Your task to perform on an android device: turn vacation reply on in the gmail app Image 0: 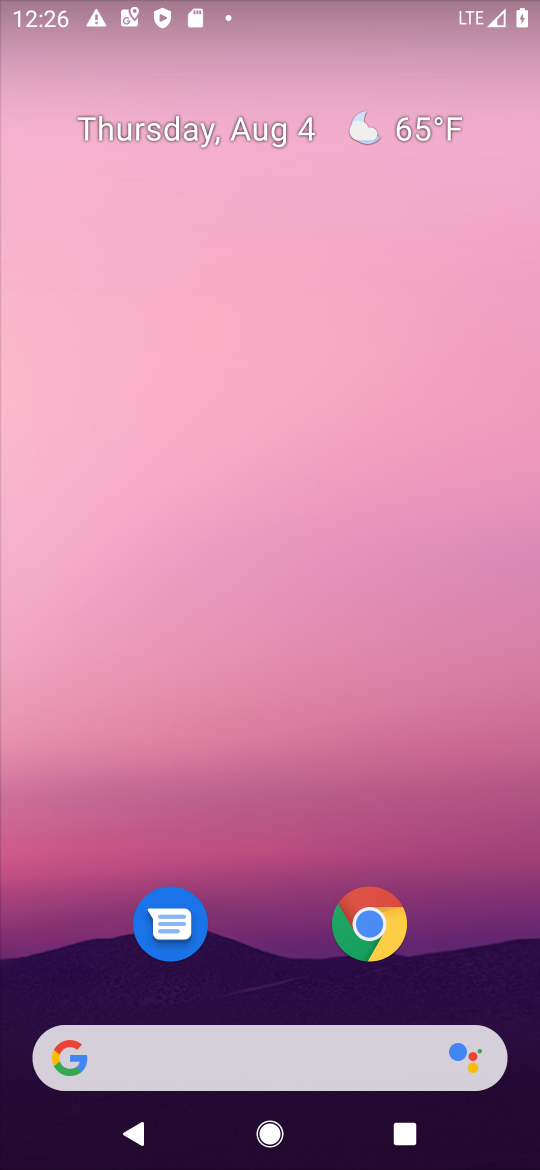
Step 0: drag from (166, 867) to (322, 29)
Your task to perform on an android device: turn vacation reply on in the gmail app Image 1: 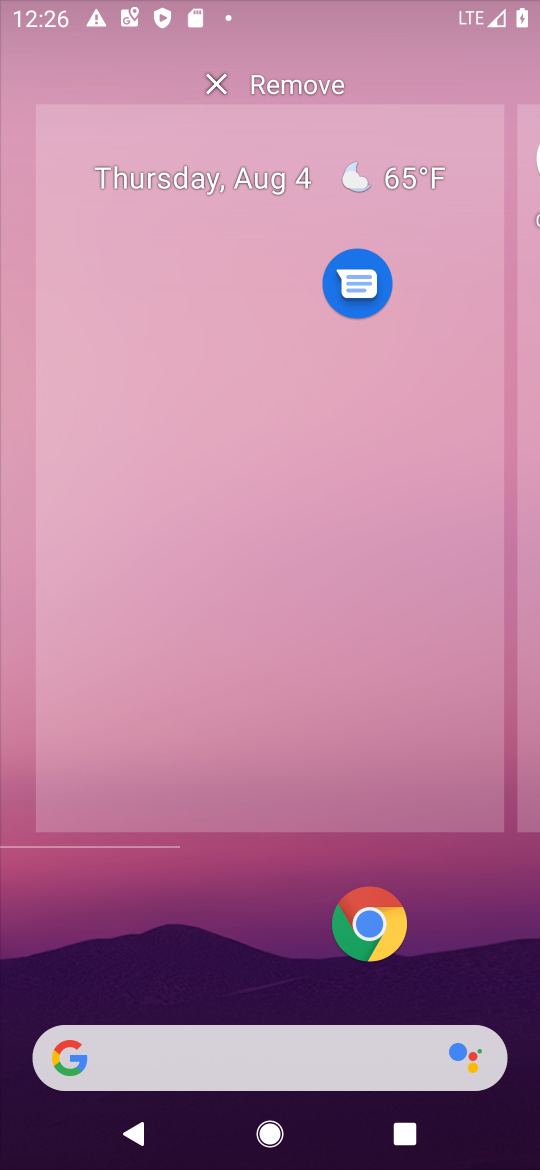
Step 1: drag from (36, 1141) to (189, 378)
Your task to perform on an android device: turn vacation reply on in the gmail app Image 2: 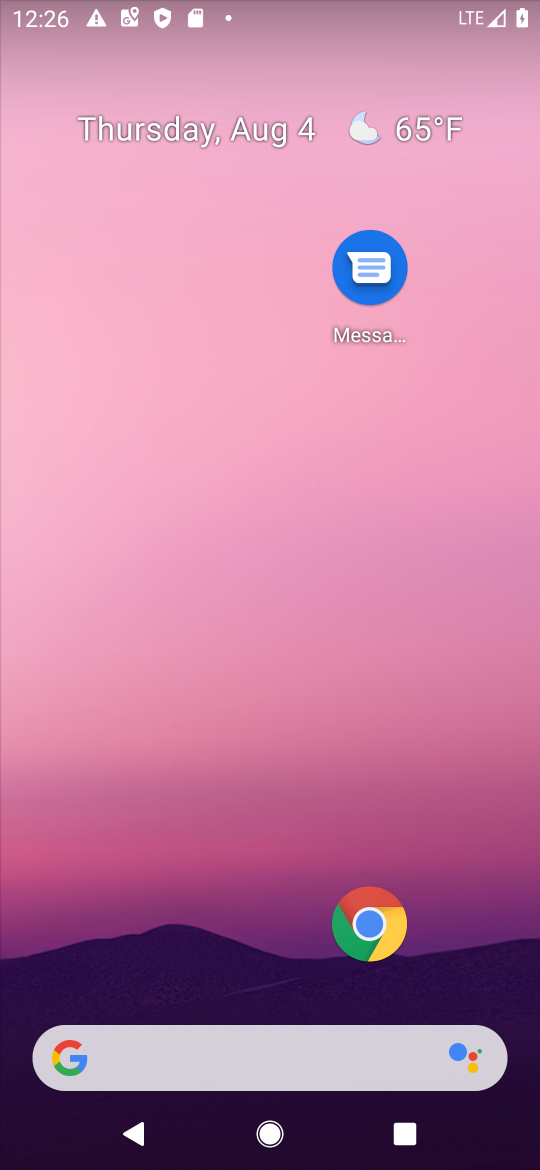
Step 2: drag from (109, 548) to (142, 267)
Your task to perform on an android device: turn vacation reply on in the gmail app Image 3: 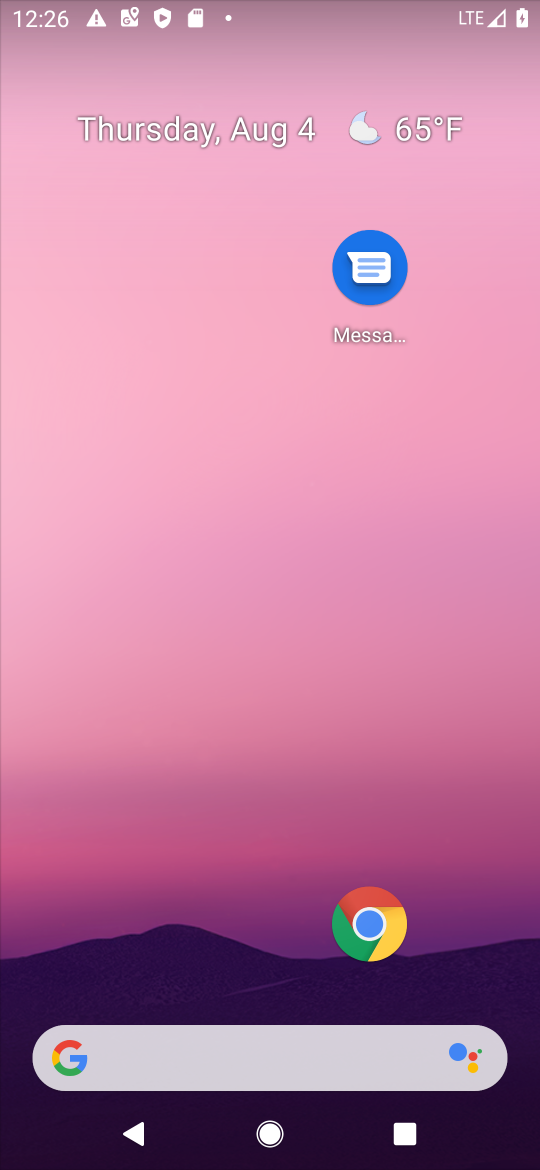
Step 3: drag from (49, 1128) to (245, 70)
Your task to perform on an android device: turn vacation reply on in the gmail app Image 4: 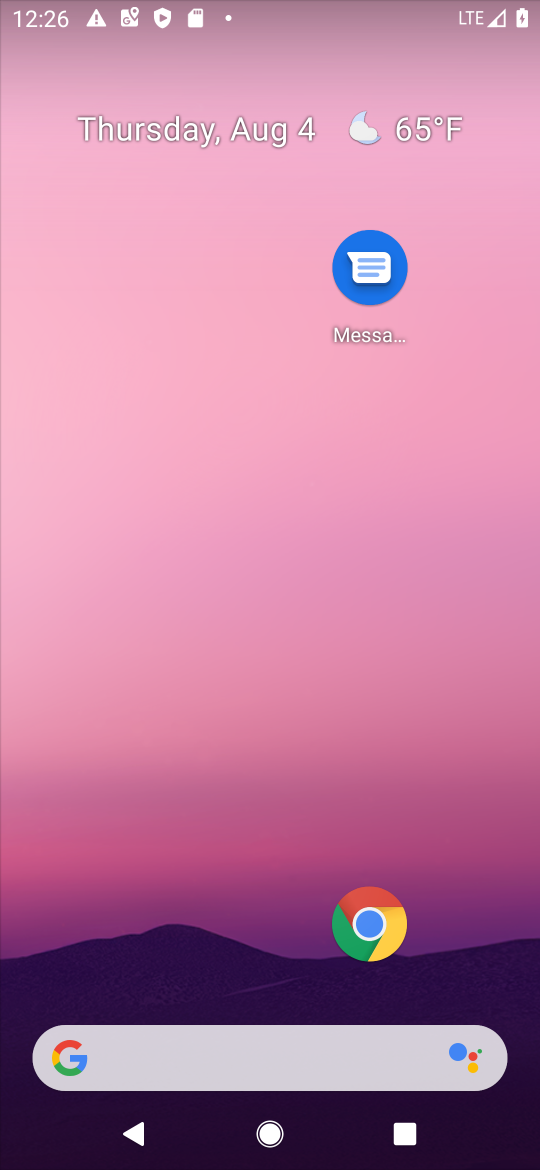
Step 4: drag from (44, 1150) to (215, 89)
Your task to perform on an android device: turn vacation reply on in the gmail app Image 5: 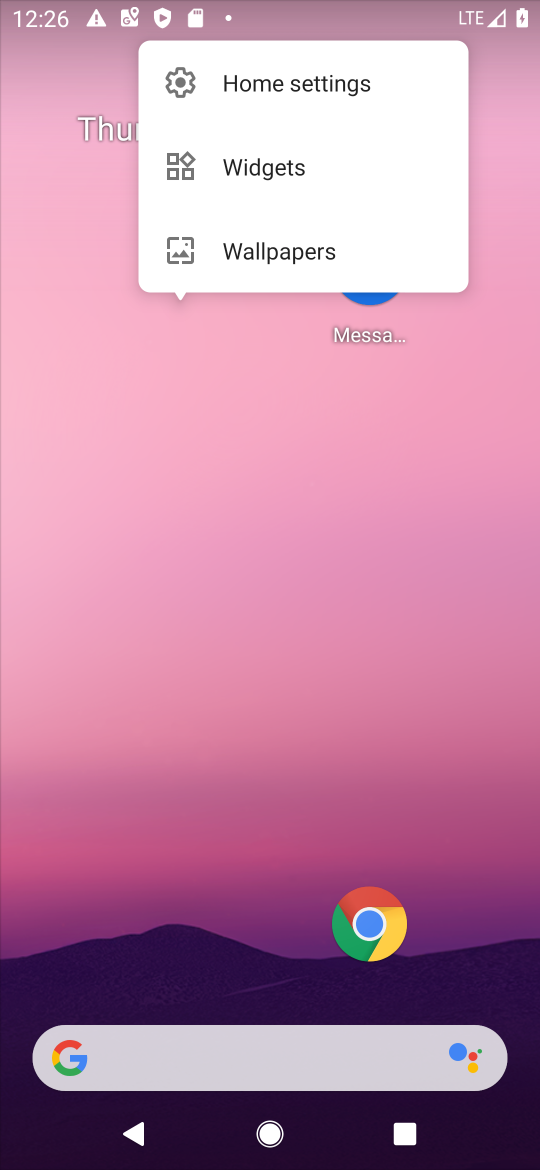
Step 5: drag from (73, 1045) to (353, 24)
Your task to perform on an android device: turn vacation reply on in the gmail app Image 6: 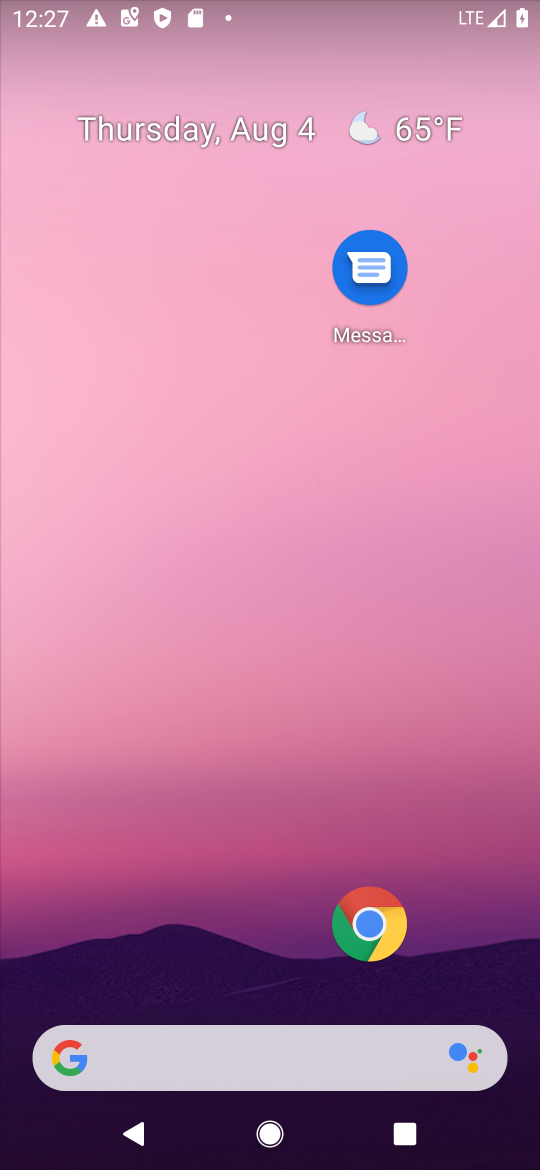
Step 6: click (365, 220)
Your task to perform on an android device: turn vacation reply on in the gmail app Image 7: 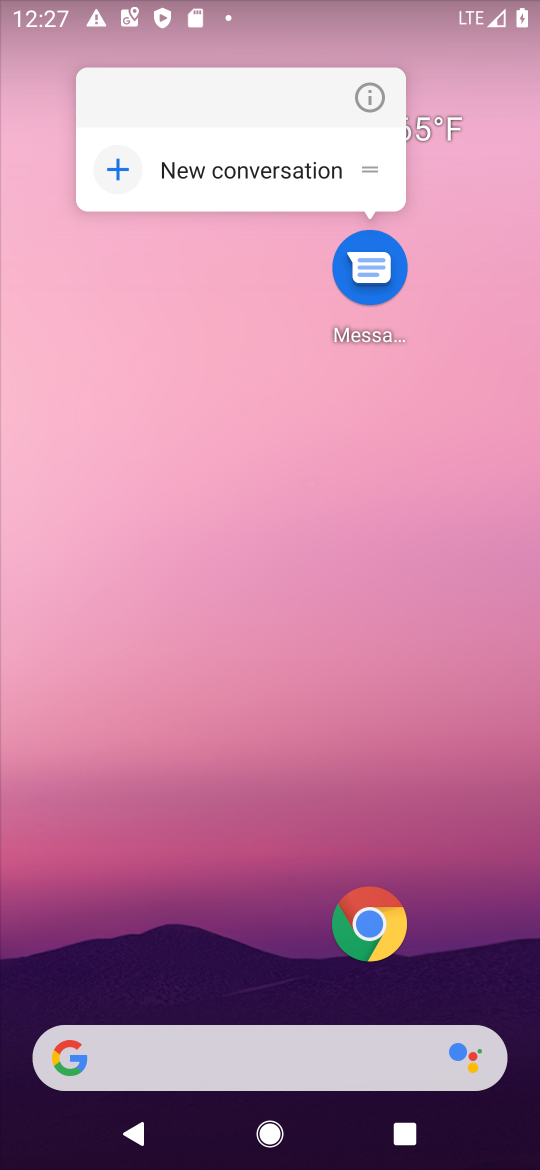
Step 7: drag from (9, 1113) to (424, 24)
Your task to perform on an android device: turn vacation reply on in the gmail app Image 8: 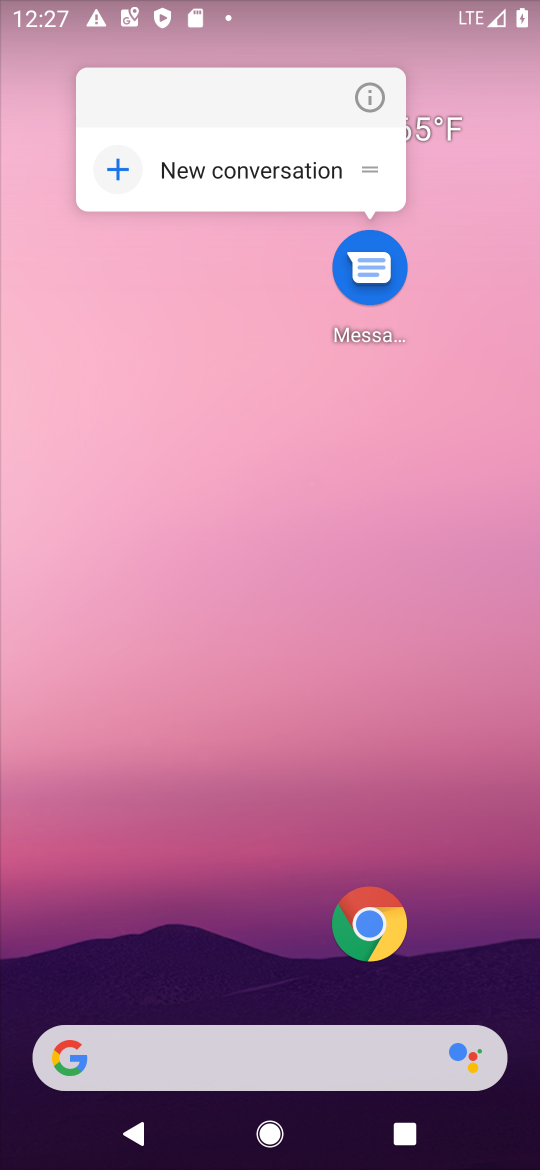
Step 8: drag from (4, 1127) to (330, 151)
Your task to perform on an android device: turn vacation reply on in the gmail app Image 9: 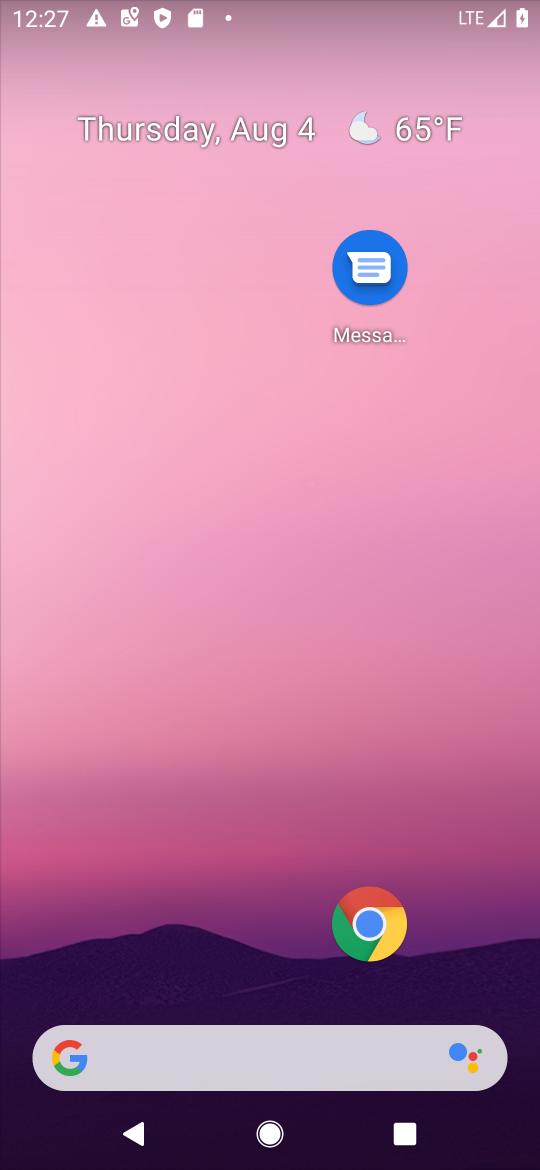
Step 9: drag from (20, 1053) to (301, 8)
Your task to perform on an android device: turn vacation reply on in the gmail app Image 10: 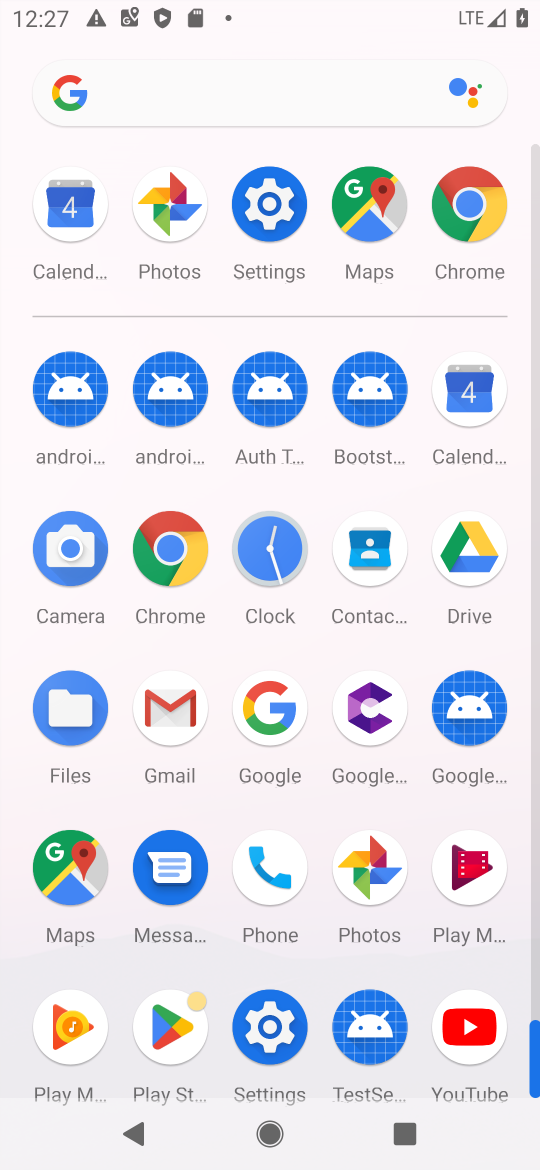
Step 10: click (162, 730)
Your task to perform on an android device: turn vacation reply on in the gmail app Image 11: 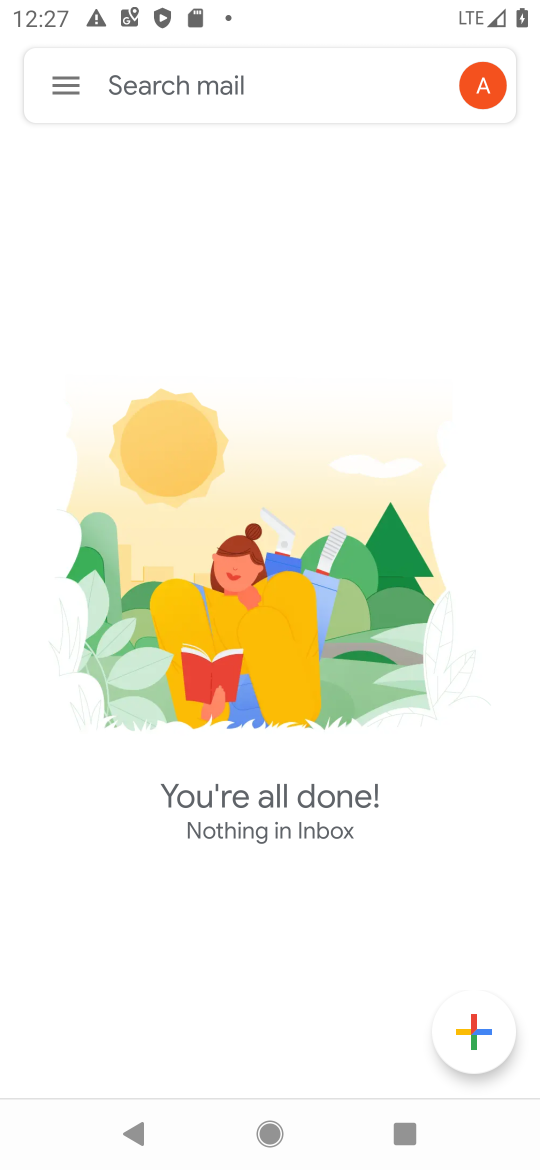
Step 11: click (36, 87)
Your task to perform on an android device: turn vacation reply on in the gmail app Image 12: 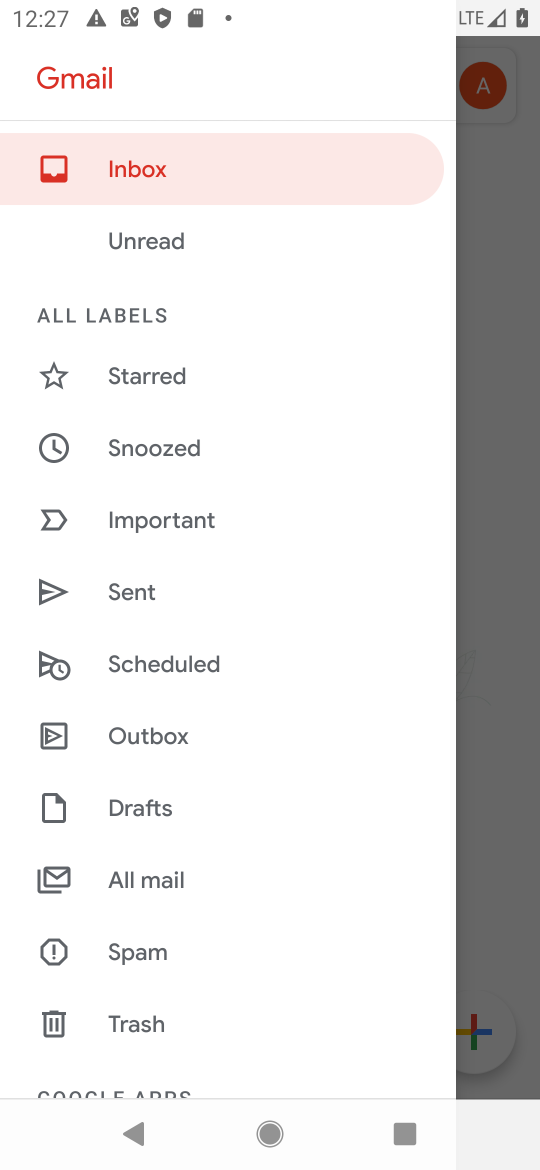
Step 12: drag from (174, 982) to (232, 610)
Your task to perform on an android device: turn vacation reply on in the gmail app Image 13: 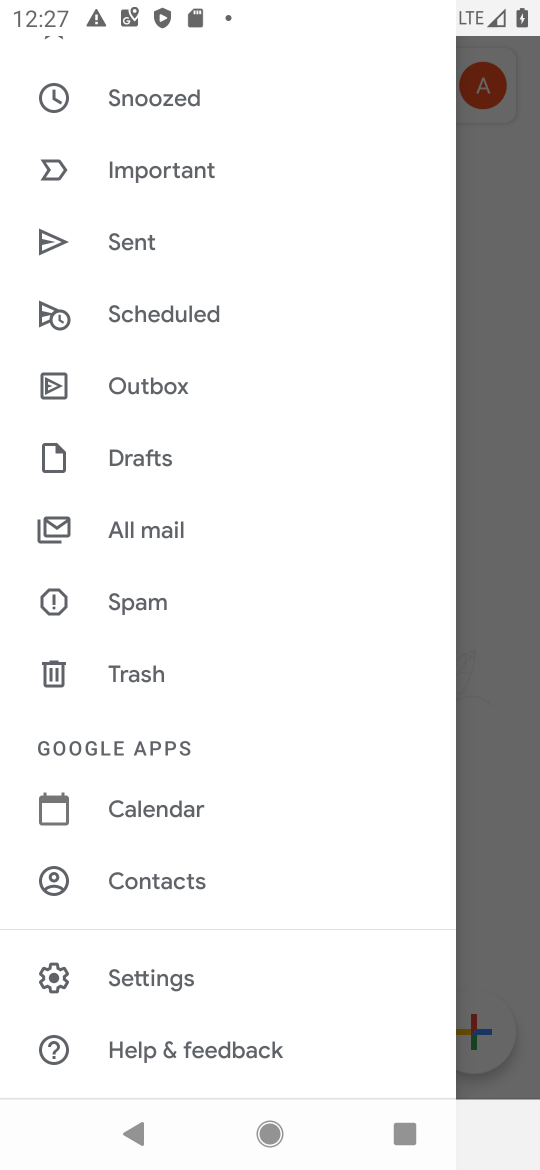
Step 13: click (184, 974)
Your task to perform on an android device: turn vacation reply on in the gmail app Image 14: 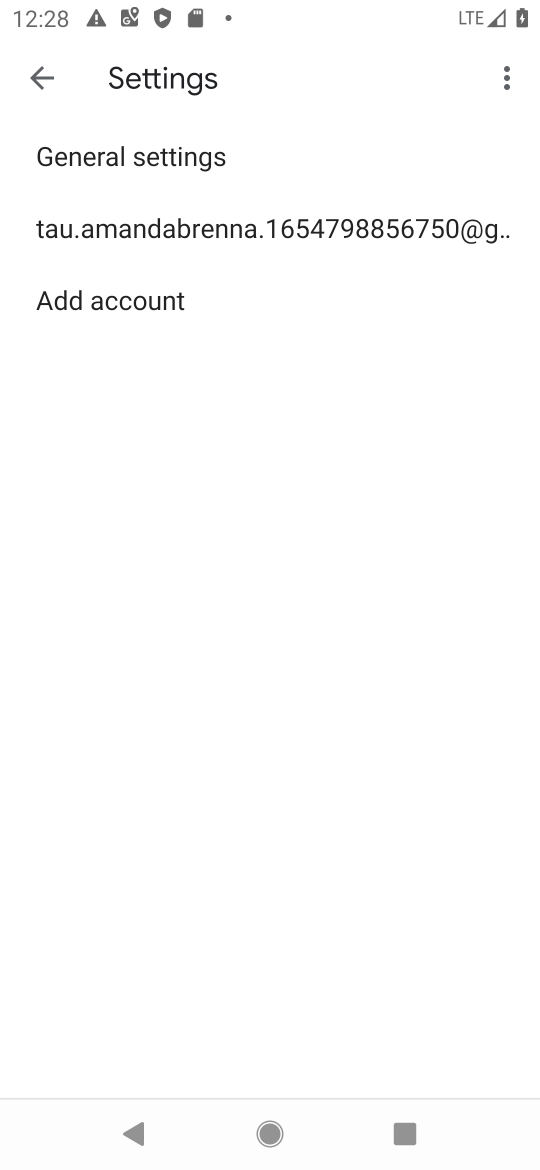
Step 14: click (108, 234)
Your task to perform on an android device: turn vacation reply on in the gmail app Image 15: 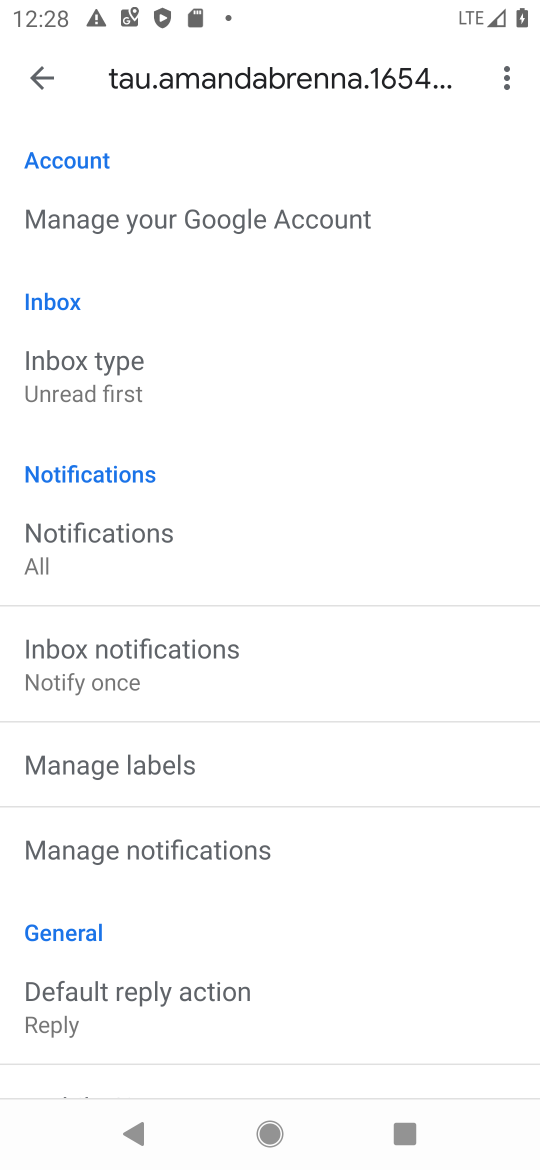
Step 15: click (155, 991)
Your task to perform on an android device: turn vacation reply on in the gmail app Image 16: 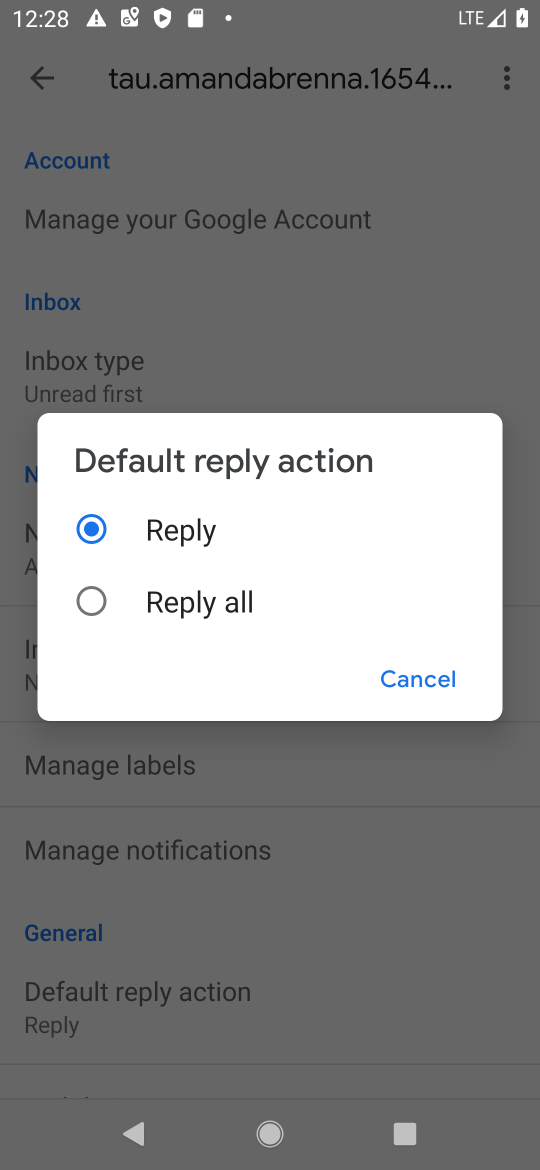
Step 16: click (434, 876)
Your task to perform on an android device: turn vacation reply on in the gmail app Image 17: 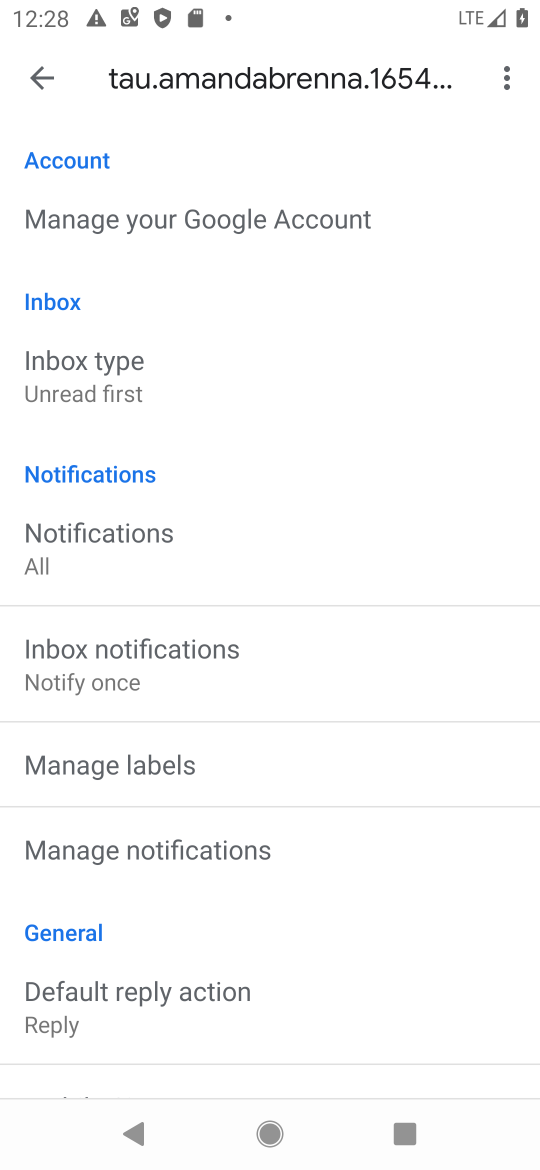
Step 17: task complete